Your task to perform on an android device: Search for dining sets on article.com Image 0: 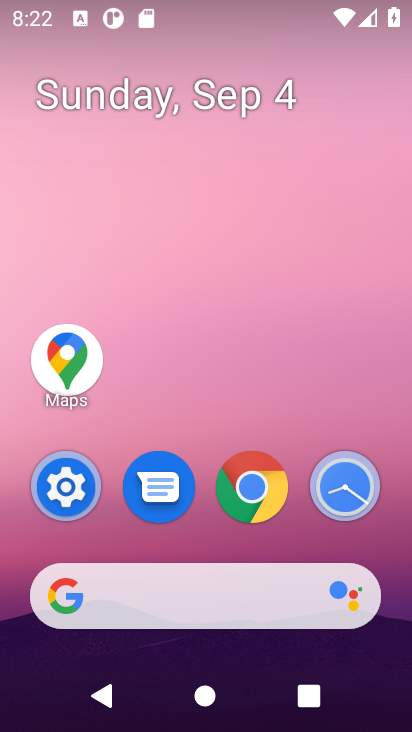
Step 0: click (217, 596)
Your task to perform on an android device: Search for dining sets on article.com Image 1: 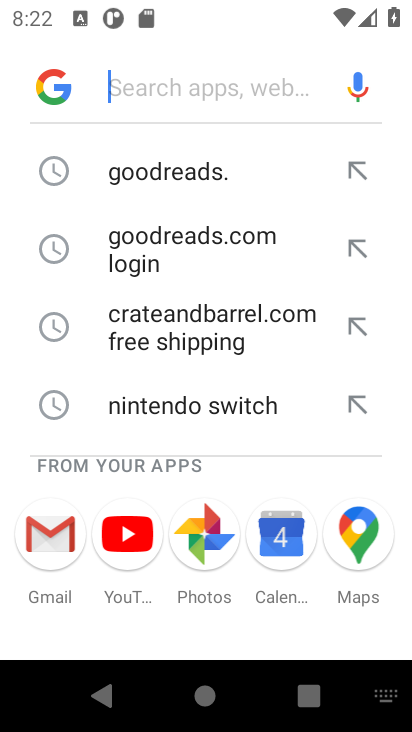
Step 1: type "article.com"
Your task to perform on an android device: Search for dining sets on article.com Image 2: 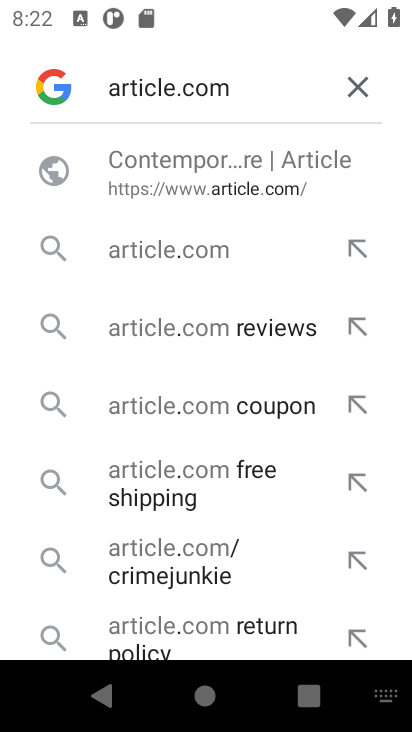
Step 2: click (192, 239)
Your task to perform on an android device: Search for dining sets on article.com Image 3: 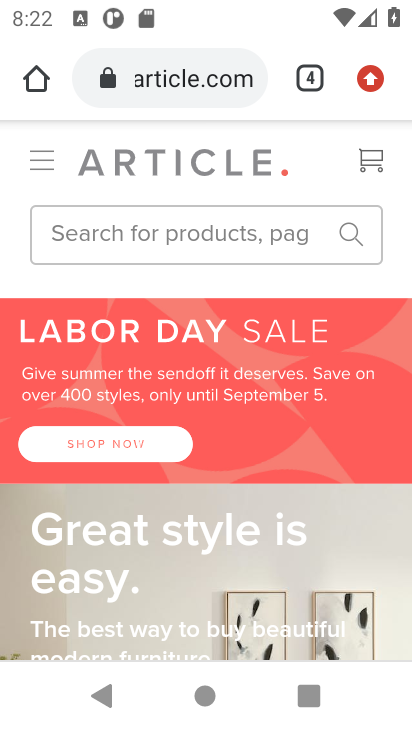
Step 3: click (354, 236)
Your task to perform on an android device: Search for dining sets on article.com Image 4: 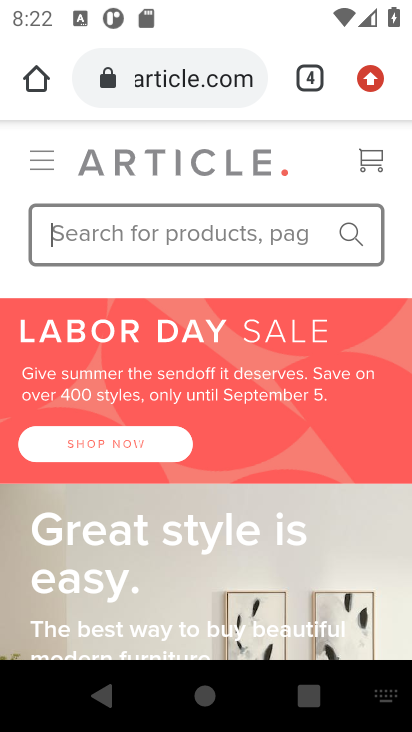
Step 4: type "dining sets"
Your task to perform on an android device: Search for dining sets on article.com Image 5: 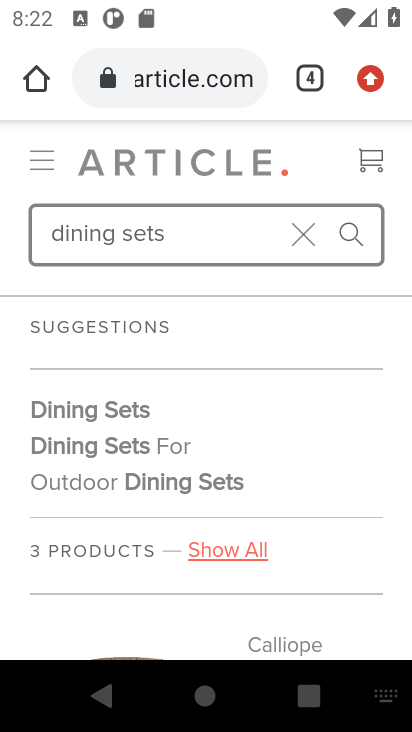
Step 5: click (84, 407)
Your task to perform on an android device: Search for dining sets on article.com Image 6: 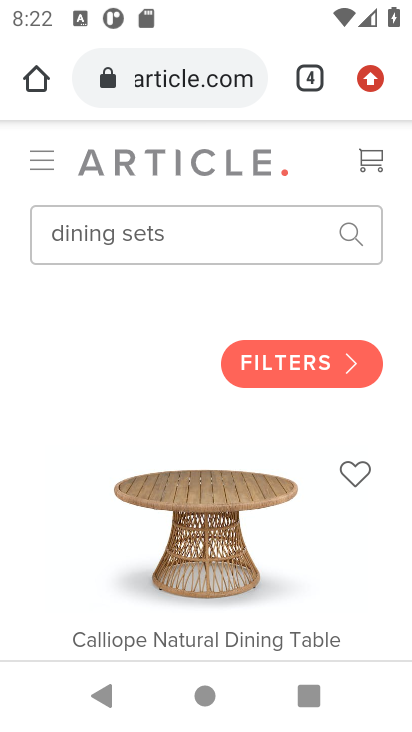
Step 6: task complete